Your task to perform on an android device: Turn on the flashlight Image 0: 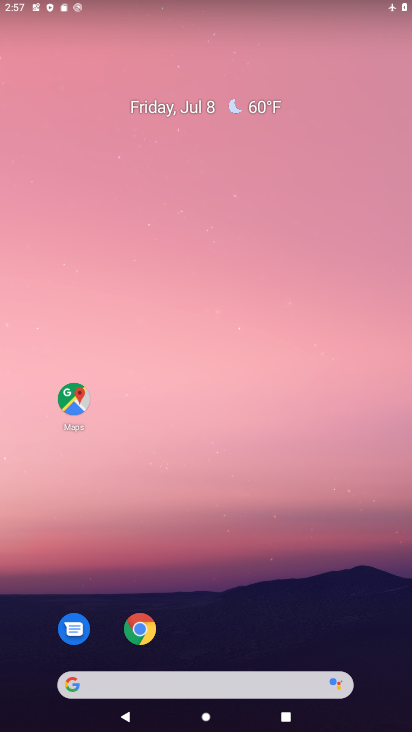
Step 0: drag from (198, 641) to (200, 231)
Your task to perform on an android device: Turn on the flashlight Image 1: 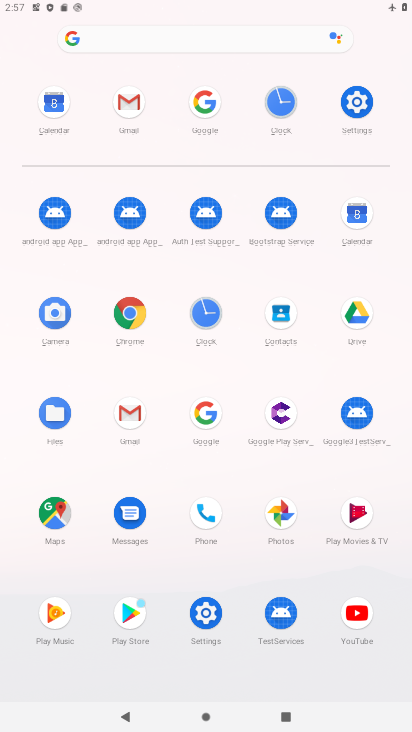
Step 1: click (348, 119)
Your task to perform on an android device: Turn on the flashlight Image 2: 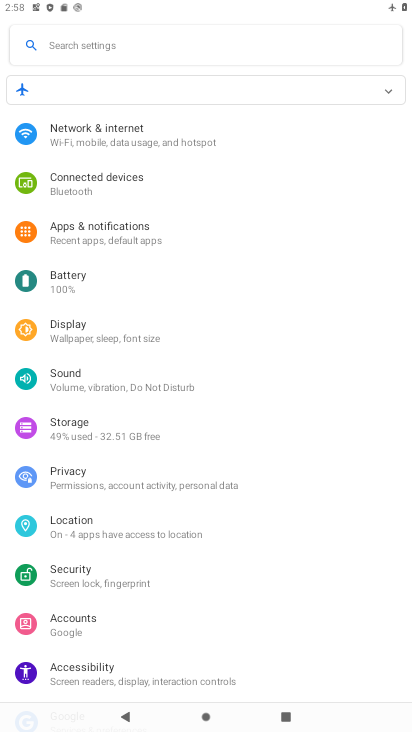
Step 2: task complete